Your task to perform on an android device: open the mobile data screen to see how much data has been used Image 0: 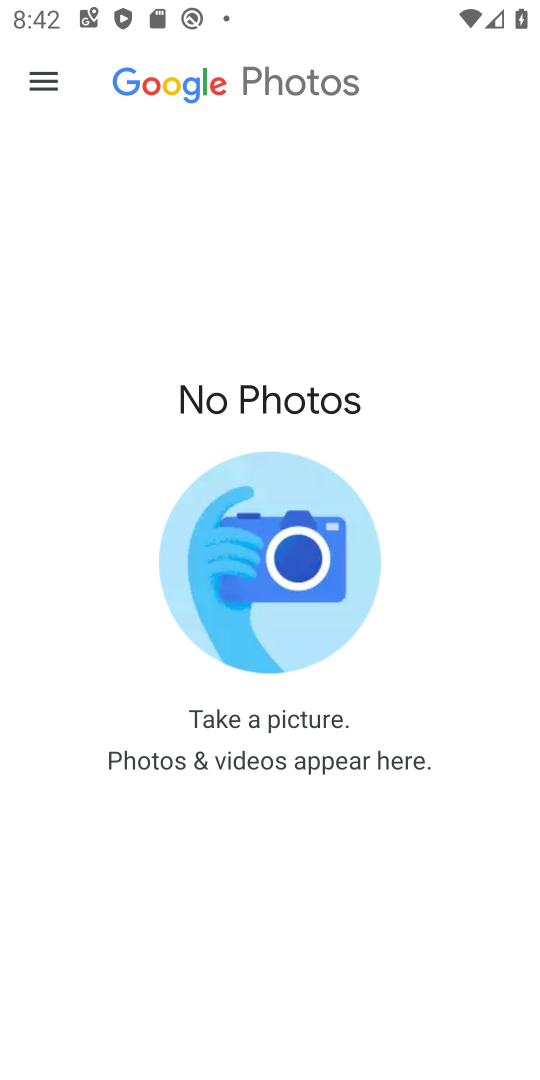
Step 0: press home button
Your task to perform on an android device: open the mobile data screen to see how much data has been used Image 1: 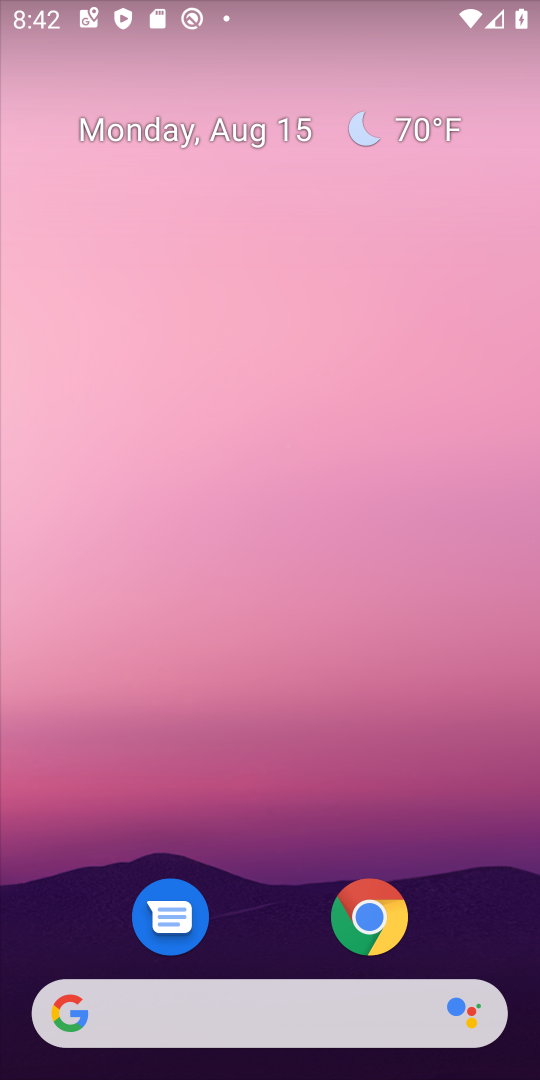
Step 1: drag from (302, 833) to (365, 5)
Your task to perform on an android device: open the mobile data screen to see how much data has been used Image 2: 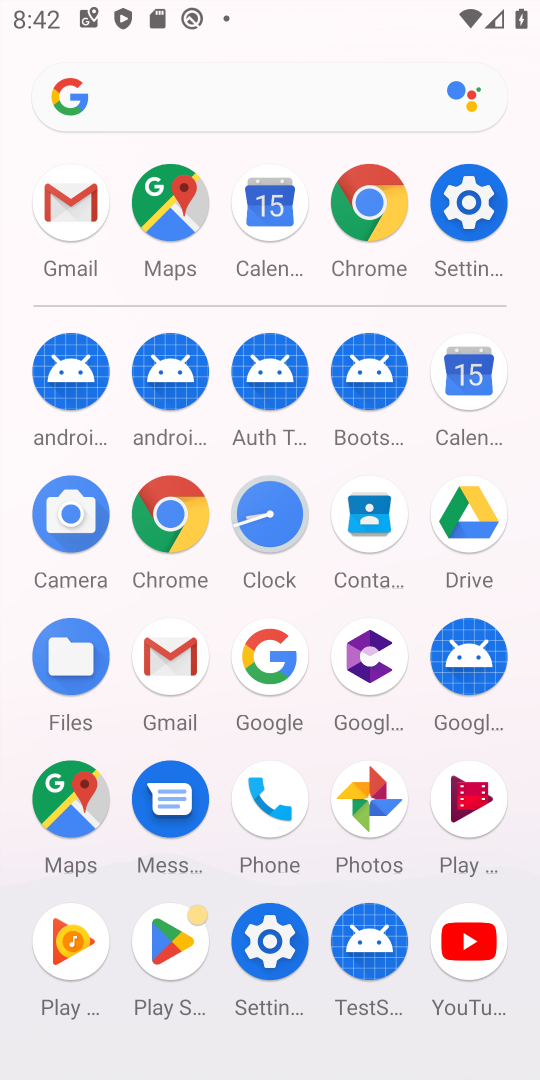
Step 2: click (476, 193)
Your task to perform on an android device: open the mobile data screen to see how much data has been used Image 3: 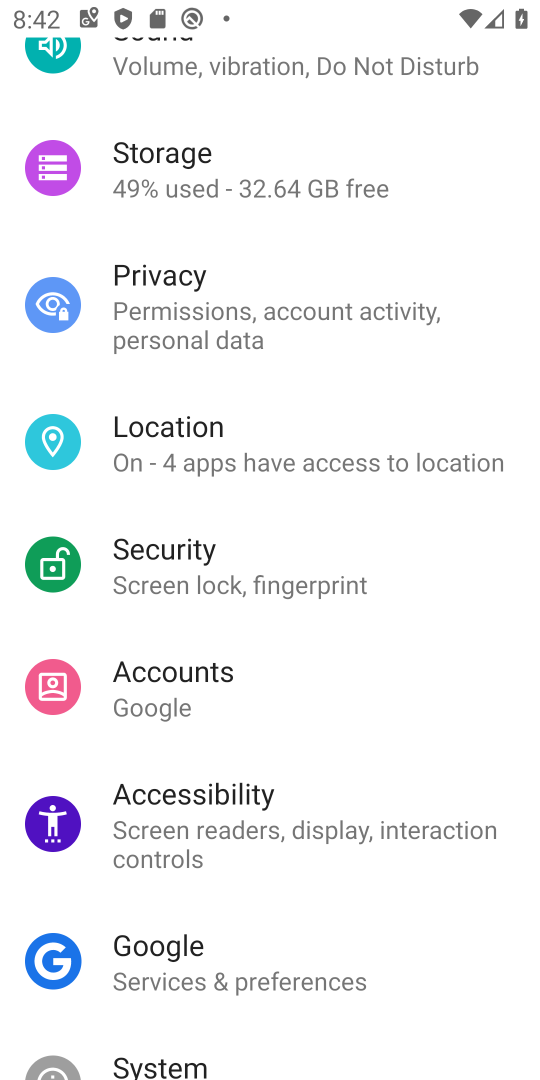
Step 3: drag from (397, 409) to (382, 848)
Your task to perform on an android device: open the mobile data screen to see how much data has been used Image 4: 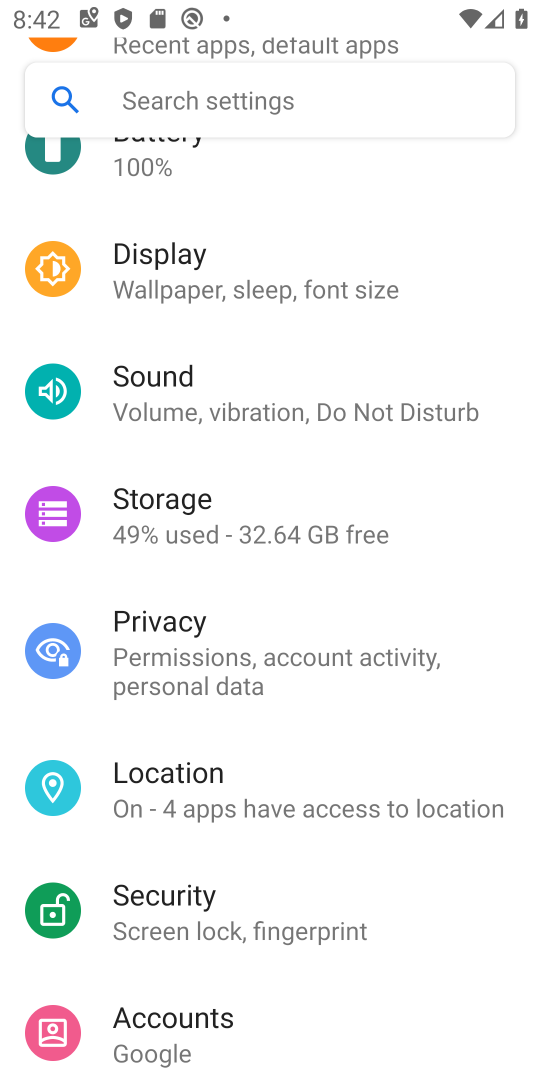
Step 4: drag from (307, 219) to (313, 697)
Your task to perform on an android device: open the mobile data screen to see how much data has been used Image 5: 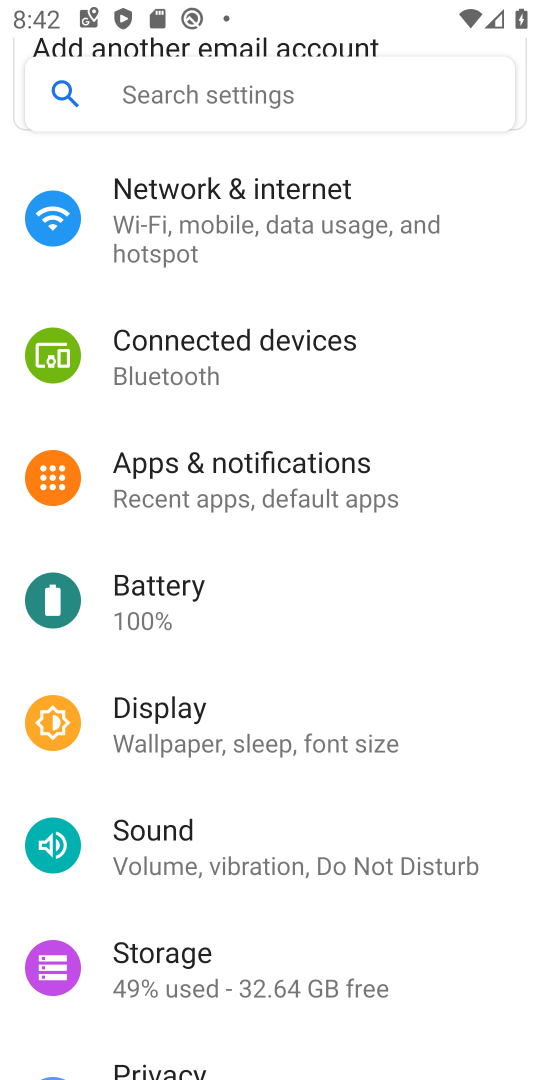
Step 5: click (327, 220)
Your task to perform on an android device: open the mobile data screen to see how much data has been used Image 6: 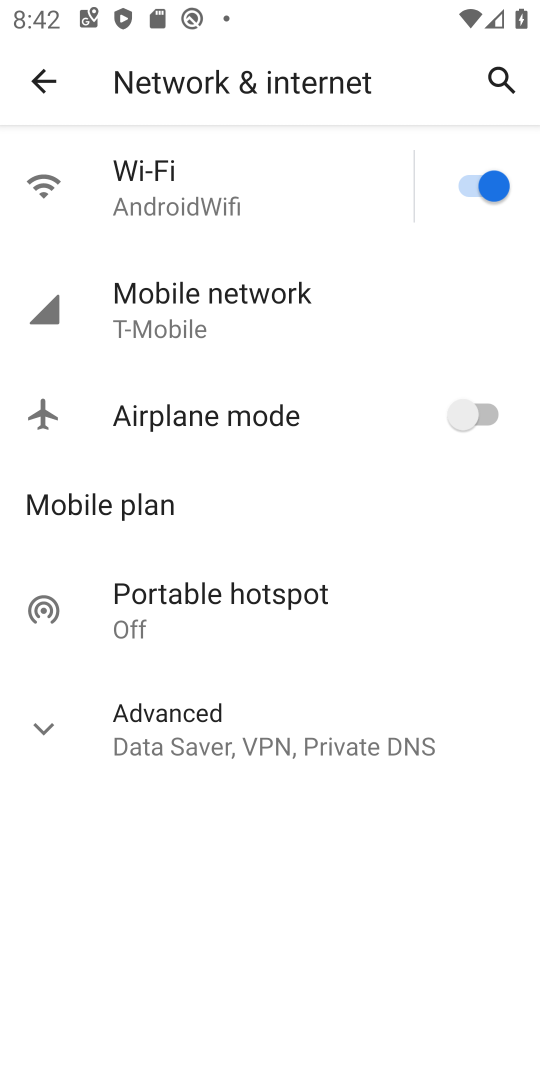
Step 6: click (316, 286)
Your task to perform on an android device: open the mobile data screen to see how much data has been used Image 7: 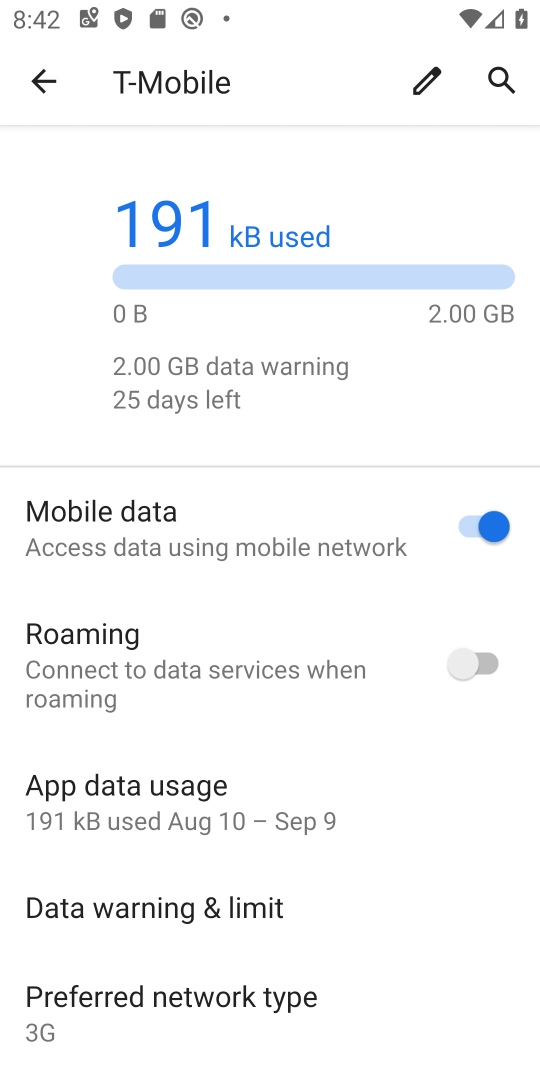
Step 7: task complete